Your task to perform on an android device: snooze an email in the gmail app Image 0: 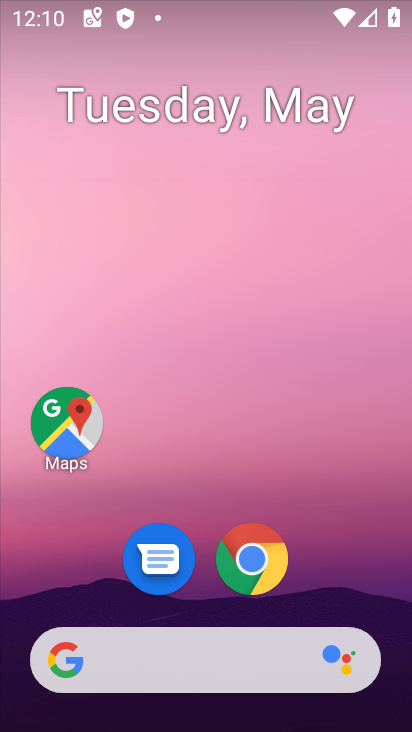
Step 0: drag from (352, 586) to (318, 81)
Your task to perform on an android device: snooze an email in the gmail app Image 1: 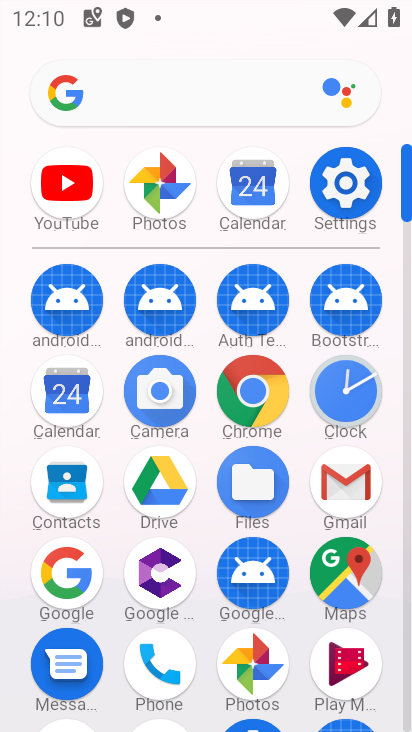
Step 1: click (359, 478)
Your task to perform on an android device: snooze an email in the gmail app Image 2: 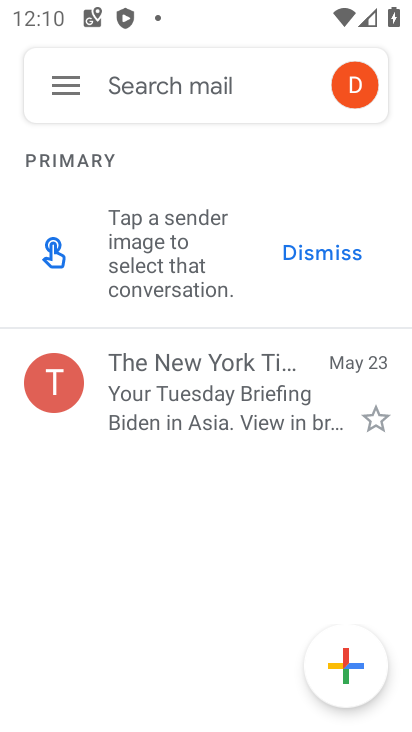
Step 2: click (79, 77)
Your task to perform on an android device: snooze an email in the gmail app Image 3: 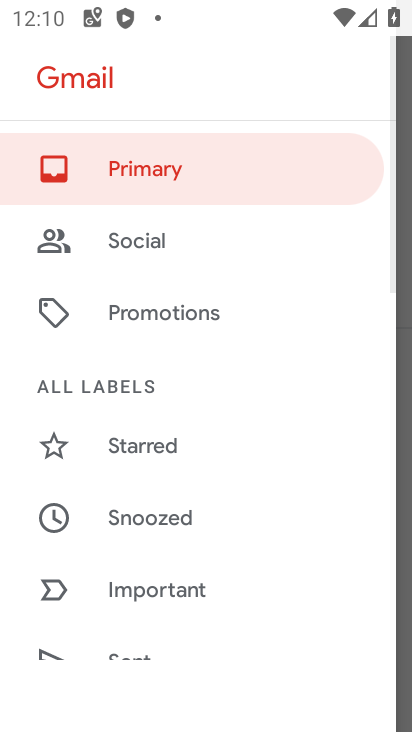
Step 3: drag from (141, 582) to (174, 214)
Your task to perform on an android device: snooze an email in the gmail app Image 4: 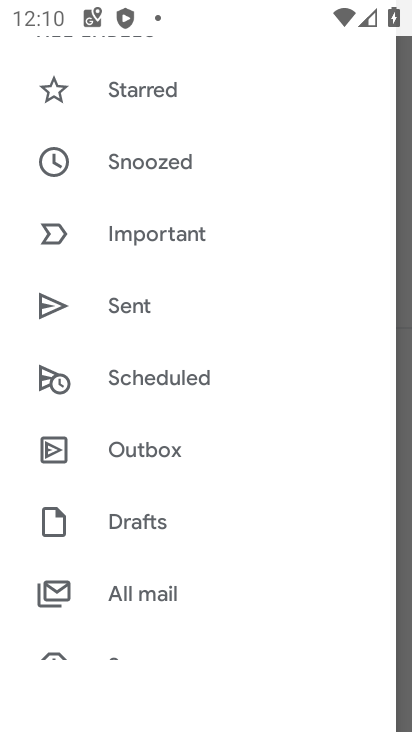
Step 4: click (181, 583)
Your task to perform on an android device: snooze an email in the gmail app Image 5: 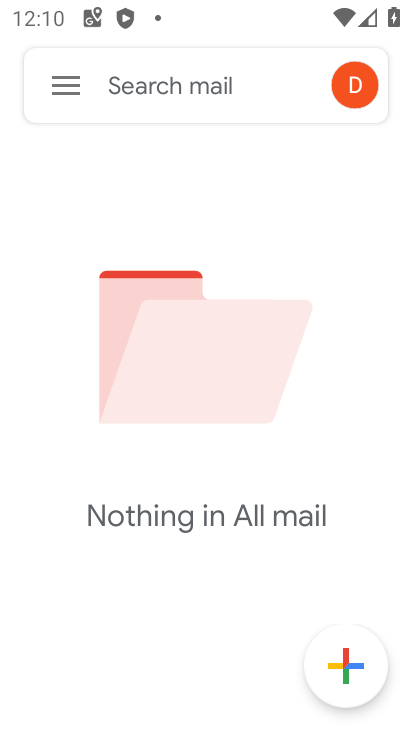
Step 5: task complete